Your task to perform on an android device: see sites visited before in the chrome app Image 0: 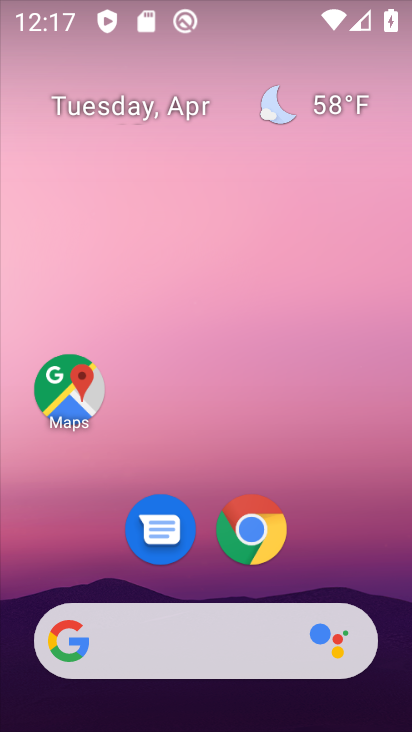
Step 0: click (243, 538)
Your task to perform on an android device: see sites visited before in the chrome app Image 1: 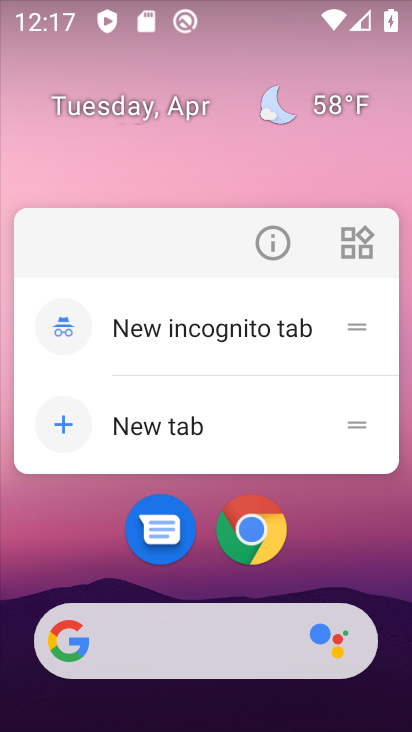
Step 1: click (243, 538)
Your task to perform on an android device: see sites visited before in the chrome app Image 2: 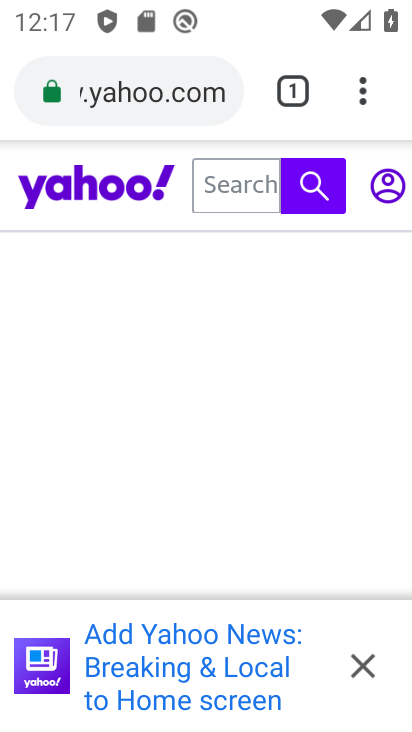
Step 2: press back button
Your task to perform on an android device: see sites visited before in the chrome app Image 3: 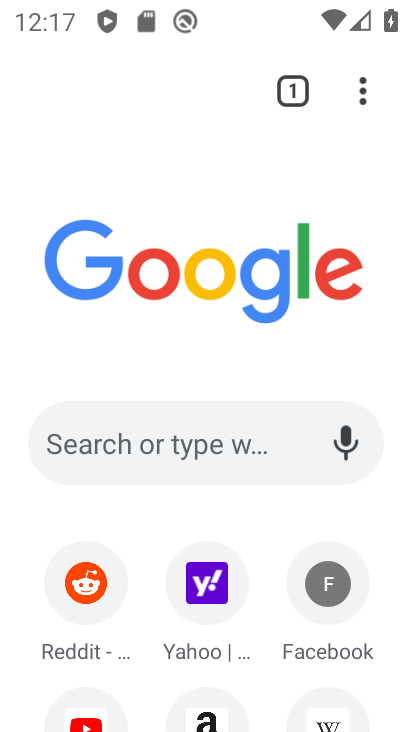
Step 3: click (357, 83)
Your task to perform on an android device: see sites visited before in the chrome app Image 4: 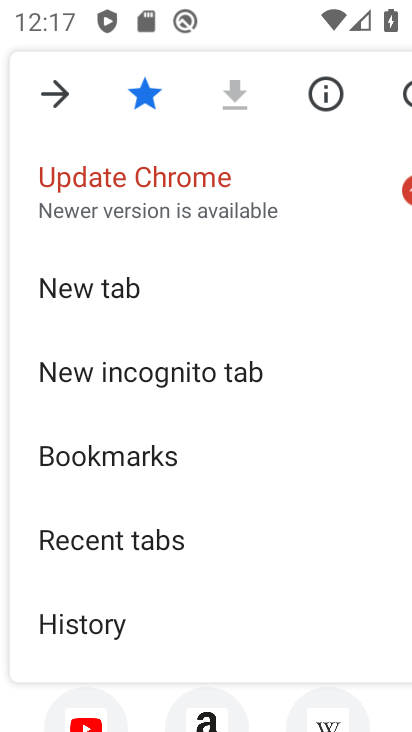
Step 4: click (94, 616)
Your task to perform on an android device: see sites visited before in the chrome app Image 5: 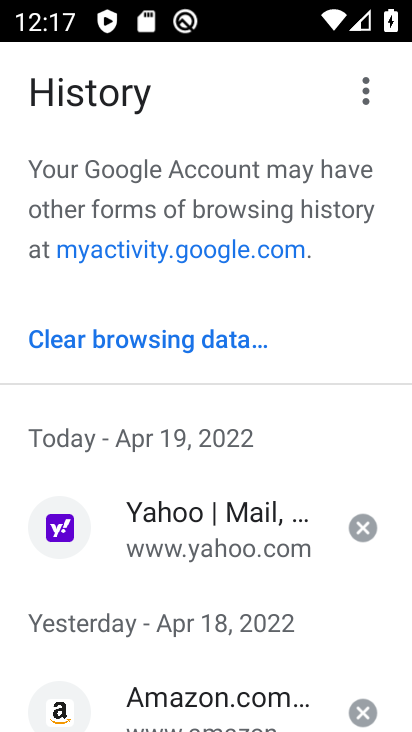
Step 5: click (151, 525)
Your task to perform on an android device: see sites visited before in the chrome app Image 6: 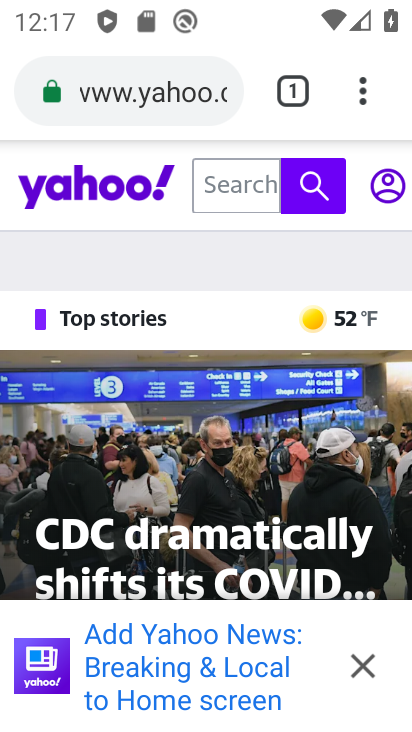
Step 6: task complete